Your task to perform on an android device: toggle translation in the chrome app Image 0: 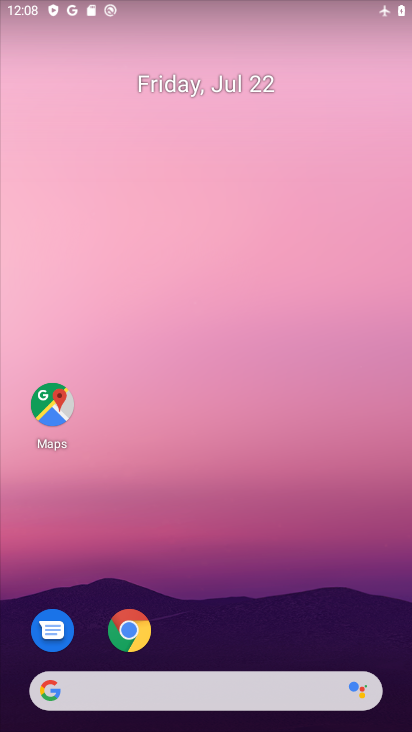
Step 0: drag from (209, 644) to (182, 83)
Your task to perform on an android device: toggle translation in the chrome app Image 1: 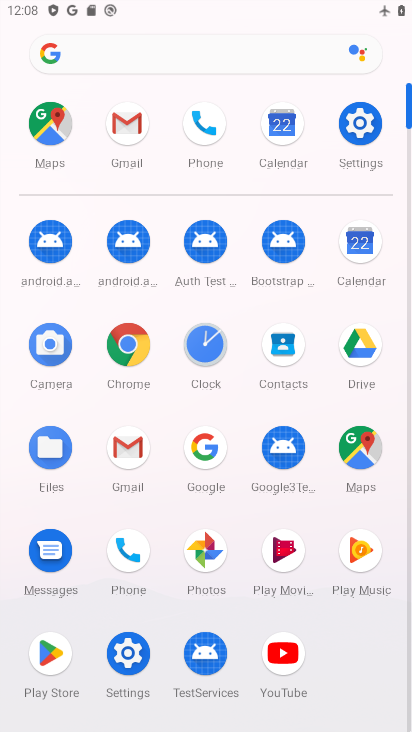
Step 1: click (115, 354)
Your task to perform on an android device: toggle translation in the chrome app Image 2: 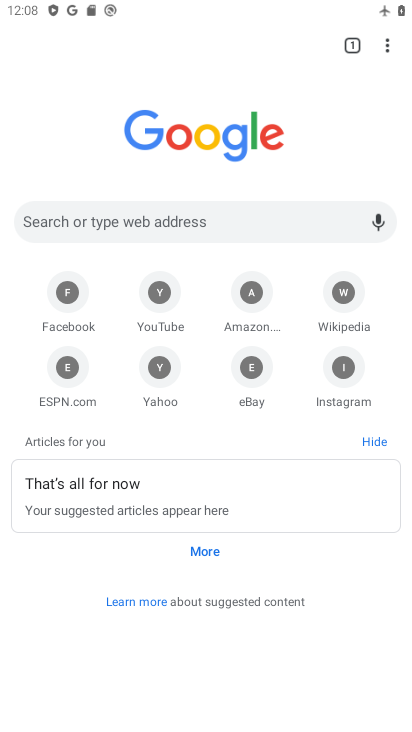
Step 2: drag from (390, 36) to (228, 368)
Your task to perform on an android device: toggle translation in the chrome app Image 3: 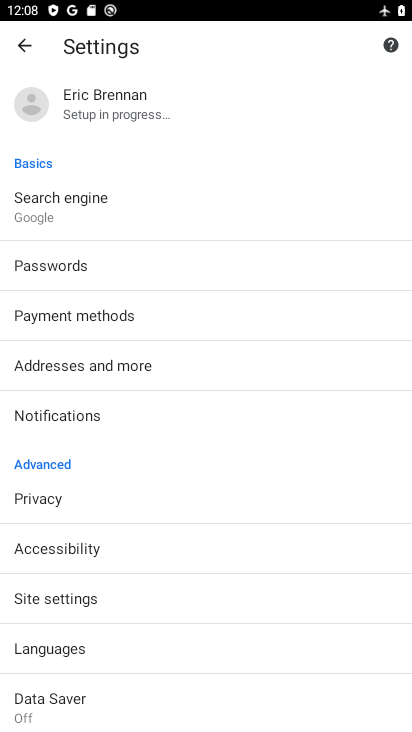
Step 3: click (52, 643)
Your task to perform on an android device: toggle translation in the chrome app Image 4: 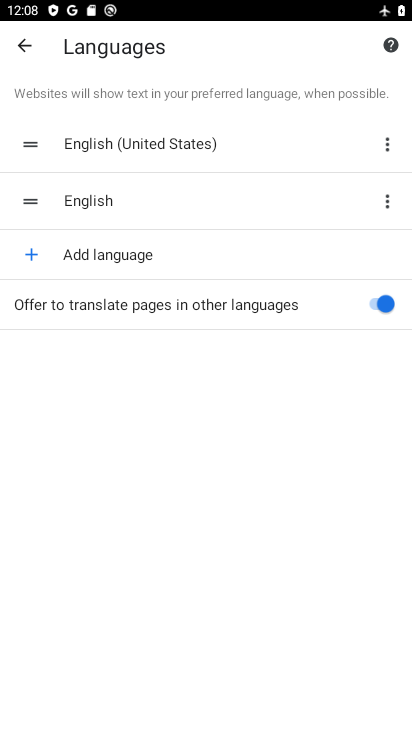
Step 4: click (371, 310)
Your task to perform on an android device: toggle translation in the chrome app Image 5: 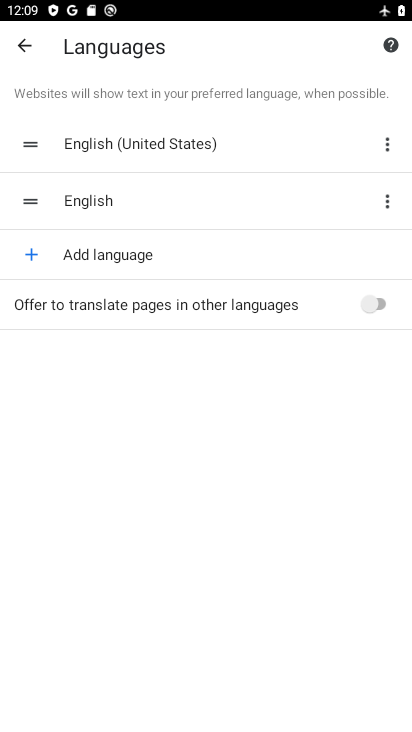
Step 5: task complete